Your task to perform on an android device: Go to Amazon Image 0: 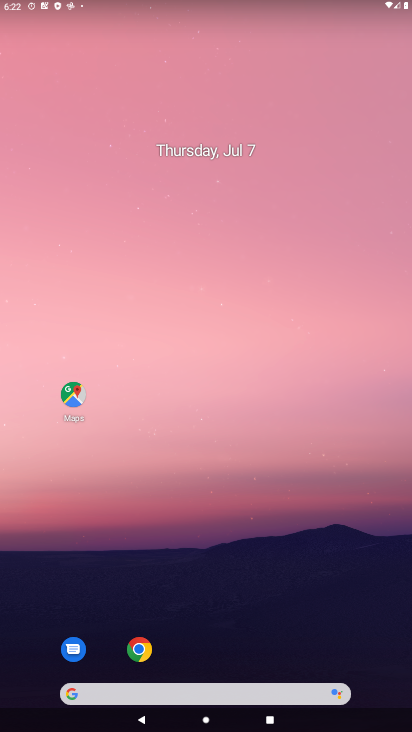
Step 0: drag from (368, 651) to (225, 9)
Your task to perform on an android device: Go to Amazon Image 1: 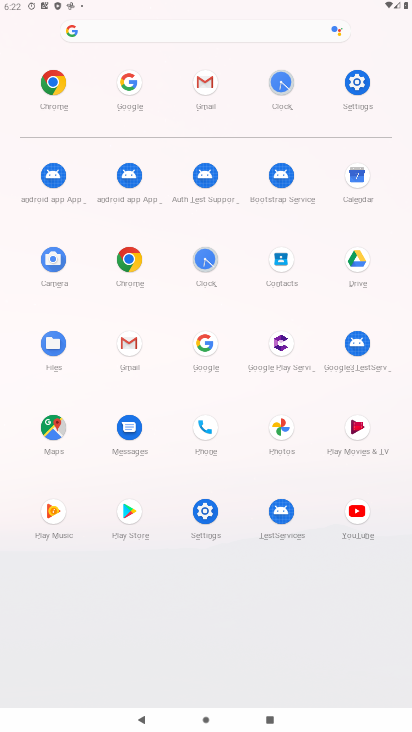
Step 1: click (208, 342)
Your task to perform on an android device: Go to Amazon Image 2: 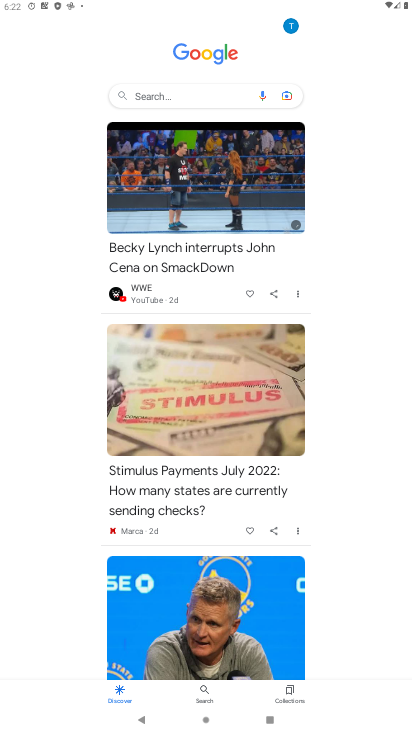
Step 2: click (154, 93)
Your task to perform on an android device: Go to Amazon Image 3: 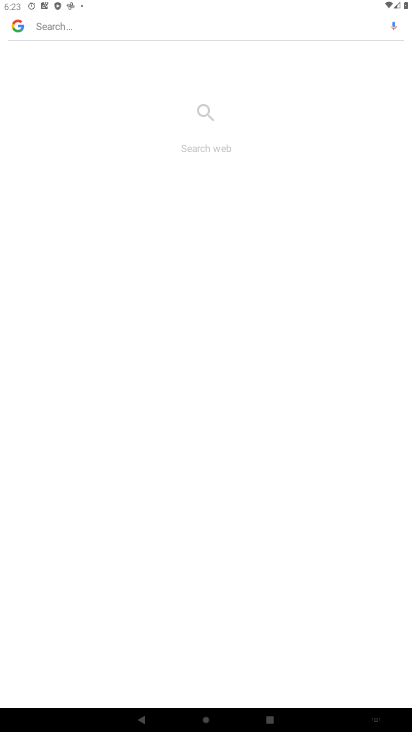
Step 3: type "Go to Amazon"
Your task to perform on an android device: Go to Amazon Image 4: 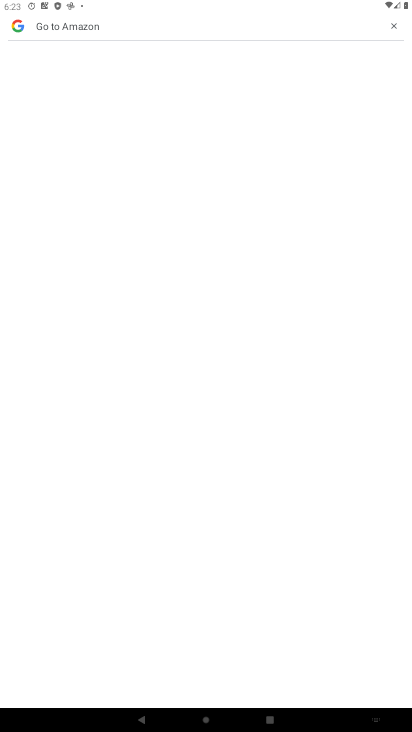
Step 4: task complete